Your task to perform on an android device: manage bookmarks in the chrome app Image 0: 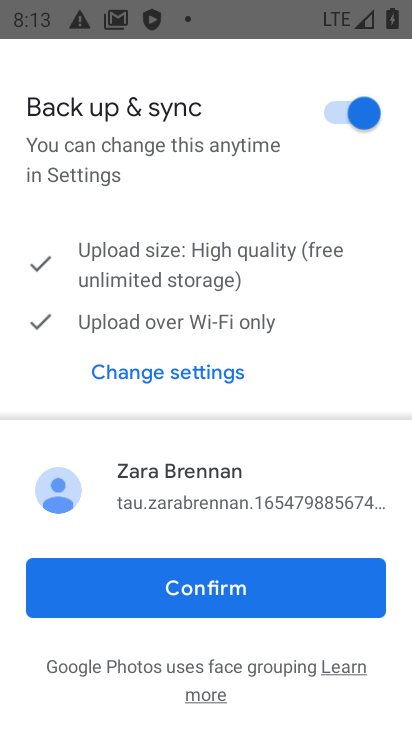
Step 0: press home button
Your task to perform on an android device: manage bookmarks in the chrome app Image 1: 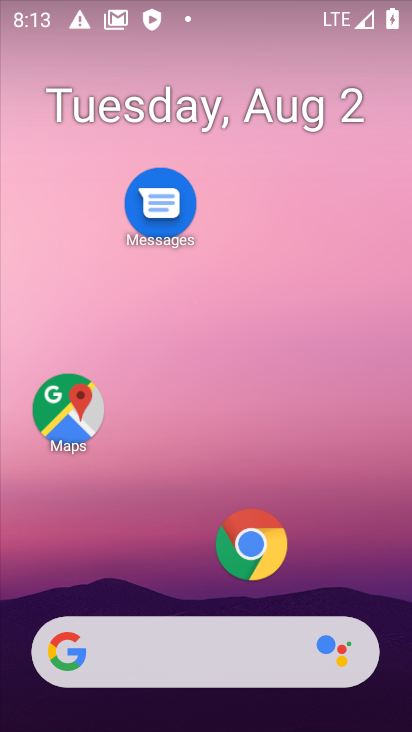
Step 1: drag from (170, 563) to (171, 520)
Your task to perform on an android device: manage bookmarks in the chrome app Image 2: 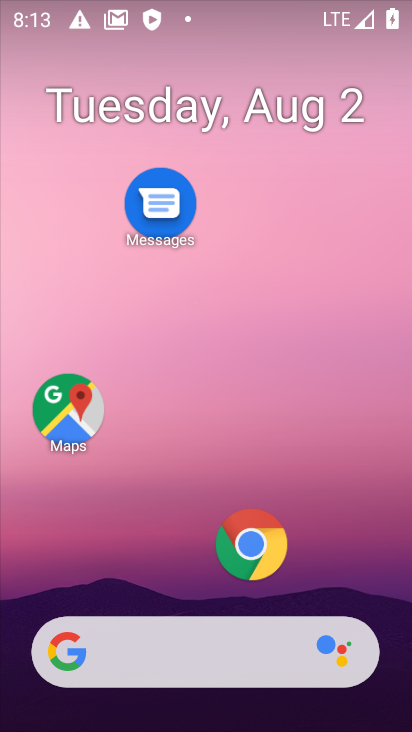
Step 2: click (264, 559)
Your task to perform on an android device: manage bookmarks in the chrome app Image 3: 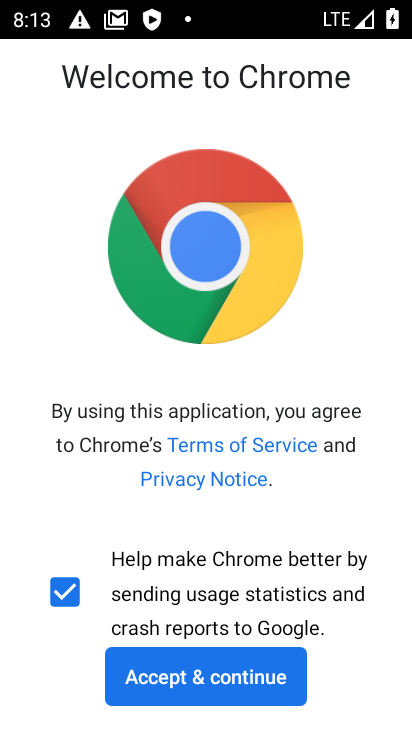
Step 3: click (265, 669)
Your task to perform on an android device: manage bookmarks in the chrome app Image 4: 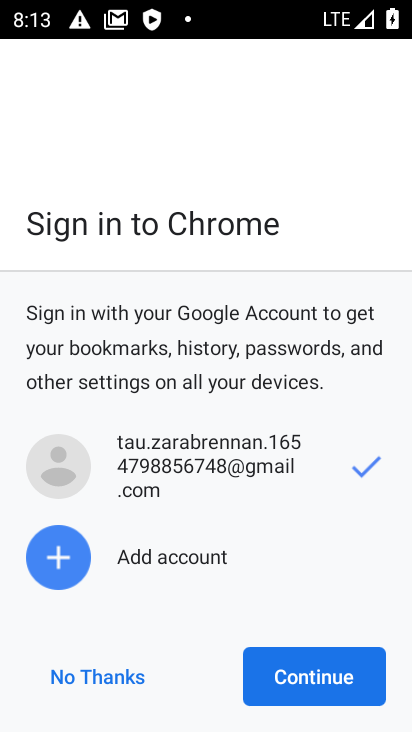
Step 4: click (296, 675)
Your task to perform on an android device: manage bookmarks in the chrome app Image 5: 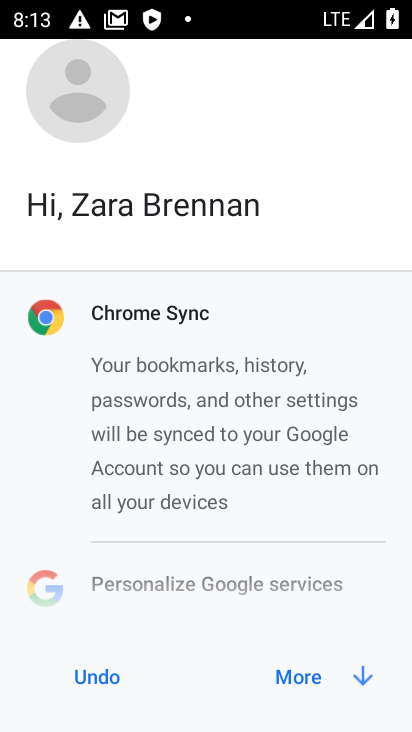
Step 5: click (296, 675)
Your task to perform on an android device: manage bookmarks in the chrome app Image 6: 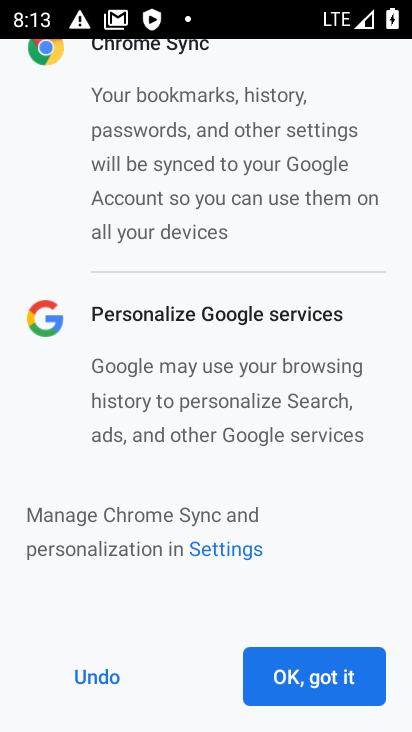
Step 6: click (296, 675)
Your task to perform on an android device: manage bookmarks in the chrome app Image 7: 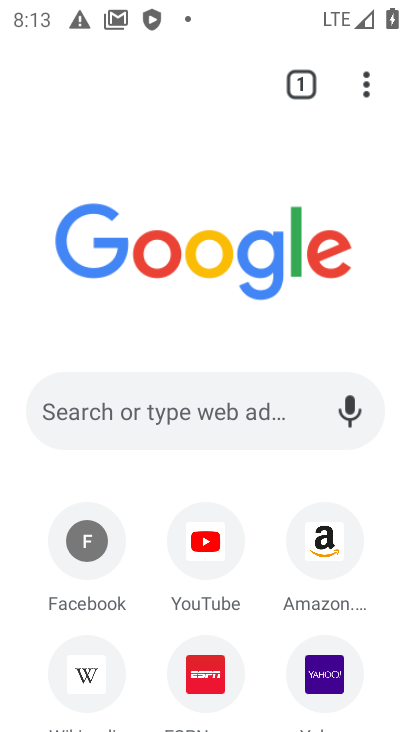
Step 7: click (367, 79)
Your task to perform on an android device: manage bookmarks in the chrome app Image 8: 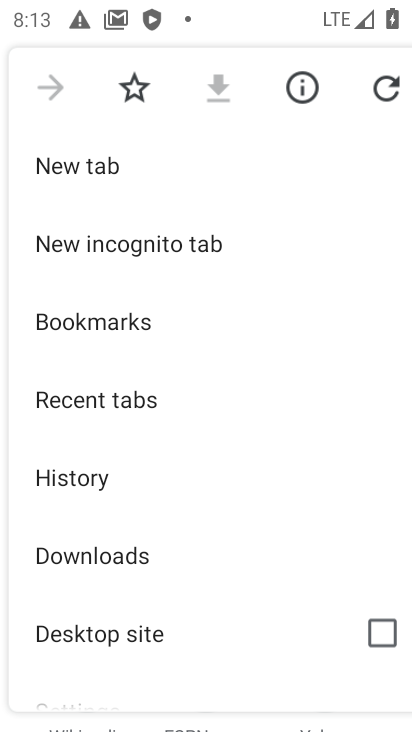
Step 8: click (92, 332)
Your task to perform on an android device: manage bookmarks in the chrome app Image 9: 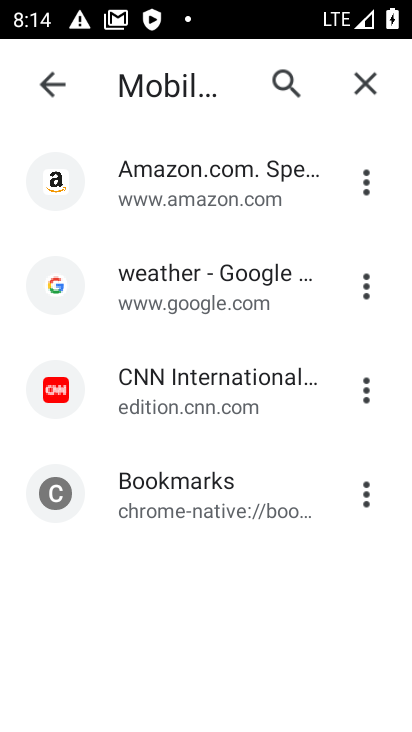
Step 9: click (362, 275)
Your task to perform on an android device: manage bookmarks in the chrome app Image 10: 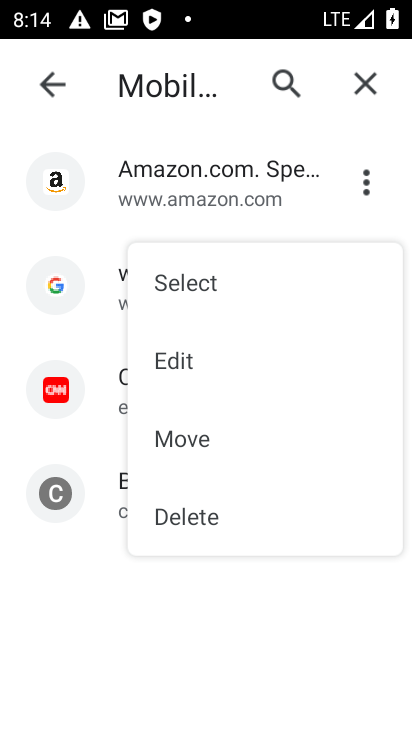
Step 10: click (194, 507)
Your task to perform on an android device: manage bookmarks in the chrome app Image 11: 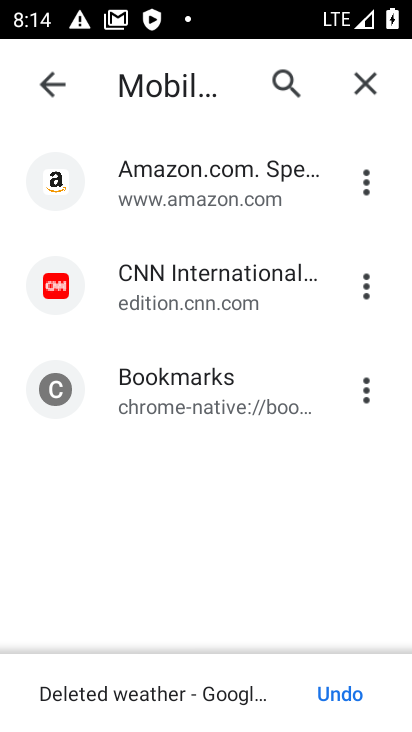
Step 11: task complete